Your task to perform on an android device: Search for flights from NYC to Mexico city Image 0: 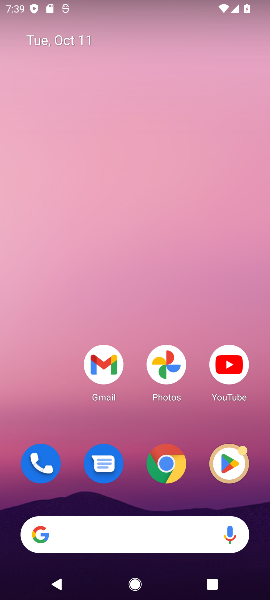
Step 0: drag from (99, 229) to (103, 120)
Your task to perform on an android device: Search for flights from NYC to Mexico city Image 1: 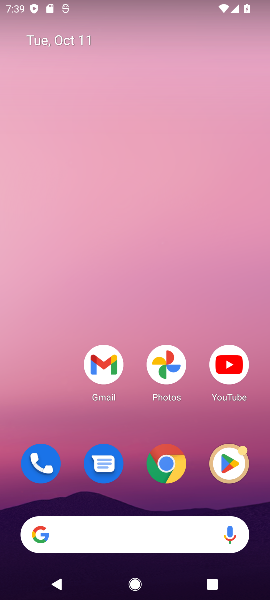
Step 1: drag from (80, 503) to (121, 96)
Your task to perform on an android device: Search for flights from NYC to Mexico city Image 2: 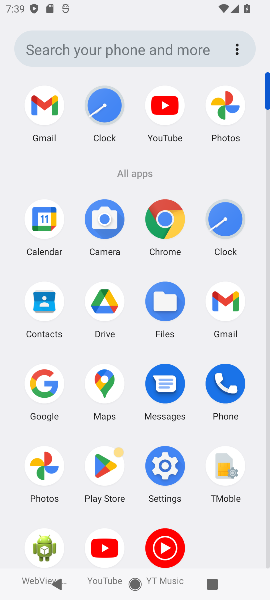
Step 2: click (42, 382)
Your task to perform on an android device: Search for flights from NYC to Mexico city Image 3: 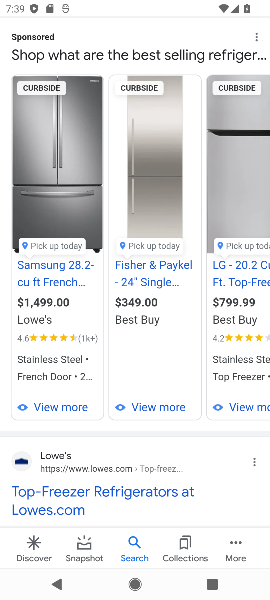
Step 3: drag from (109, 103) to (127, 458)
Your task to perform on an android device: Search for flights from NYC to Mexico city Image 4: 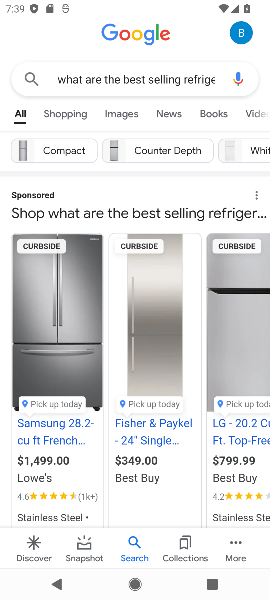
Step 4: click (115, 71)
Your task to perform on an android device: Search for flights from NYC to Mexico city Image 5: 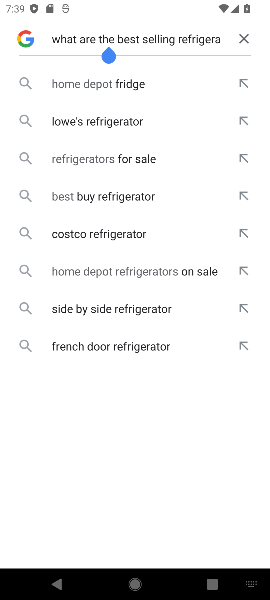
Step 5: click (241, 36)
Your task to perform on an android device: Search for flights from NYC to Mexico city Image 6: 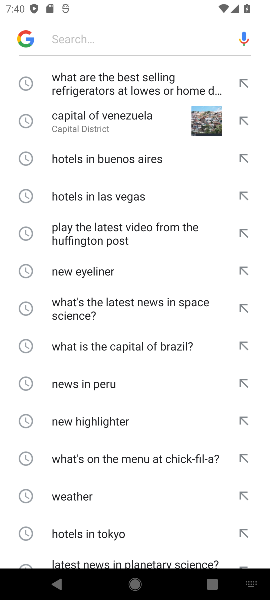
Step 6: click (145, 38)
Your task to perform on an android device: Search for flights from NYC to Mexico city Image 7: 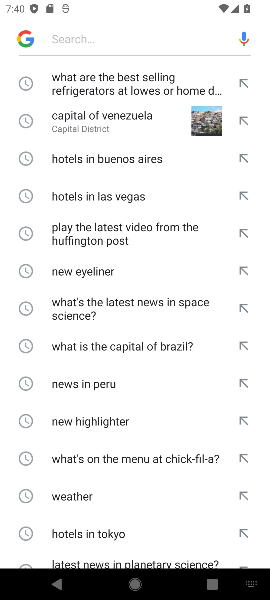
Step 7: type "Search for flights from NYC to Mexico city "
Your task to perform on an android device: Search for flights from NYC to Mexico city Image 8: 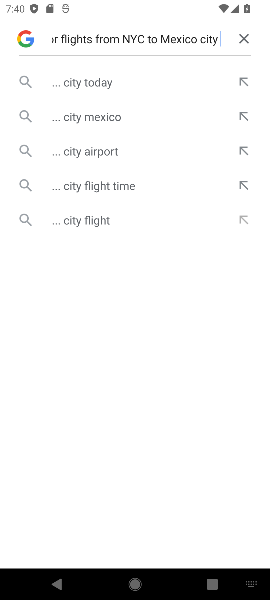
Step 8: click (59, 68)
Your task to perform on an android device: Search for flights from NYC to Mexico city Image 9: 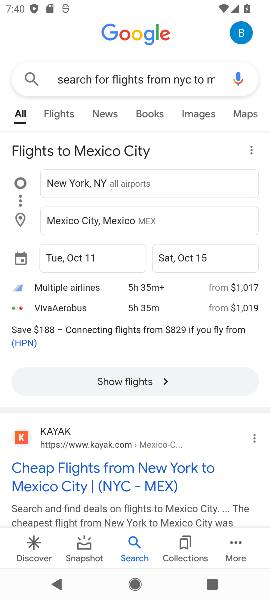
Step 9: click (119, 468)
Your task to perform on an android device: Search for flights from NYC to Mexico city Image 10: 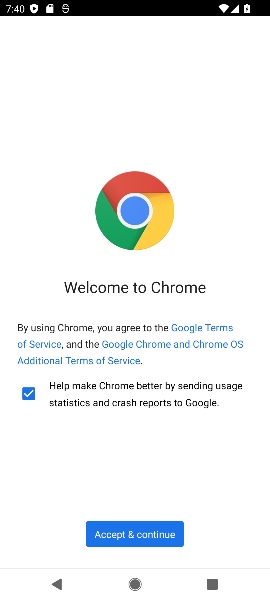
Step 10: click (141, 528)
Your task to perform on an android device: Search for flights from NYC to Mexico city Image 11: 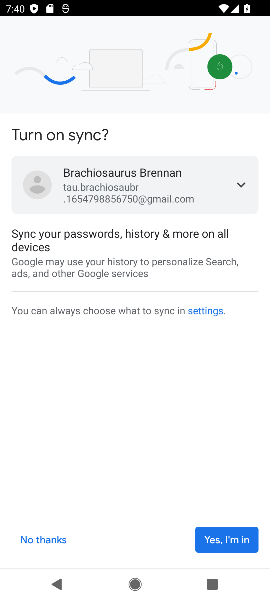
Step 11: click (243, 528)
Your task to perform on an android device: Search for flights from NYC to Mexico city Image 12: 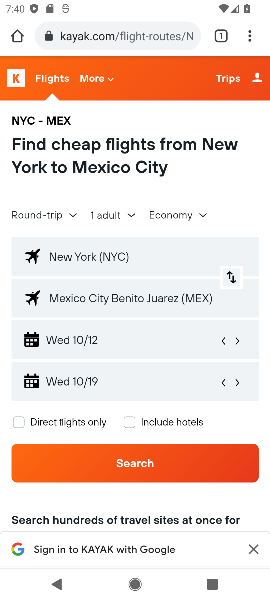
Step 12: click (150, 451)
Your task to perform on an android device: Search for flights from NYC to Mexico city Image 13: 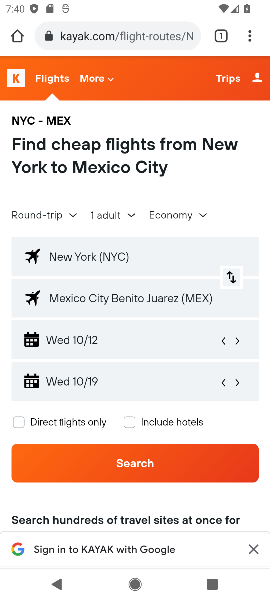
Step 13: click (152, 459)
Your task to perform on an android device: Search for flights from NYC to Mexico city Image 14: 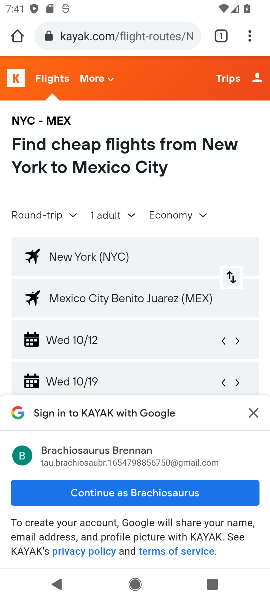
Step 14: task complete